Your task to perform on an android device: Do I have any events today? Image 0: 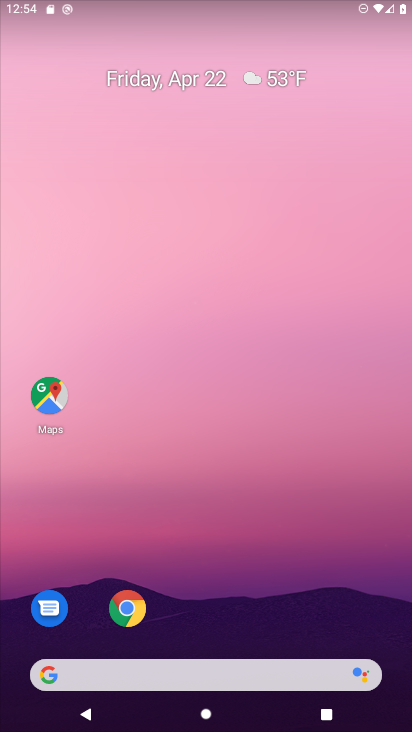
Step 0: drag from (389, 659) to (326, 204)
Your task to perform on an android device: Do I have any events today? Image 1: 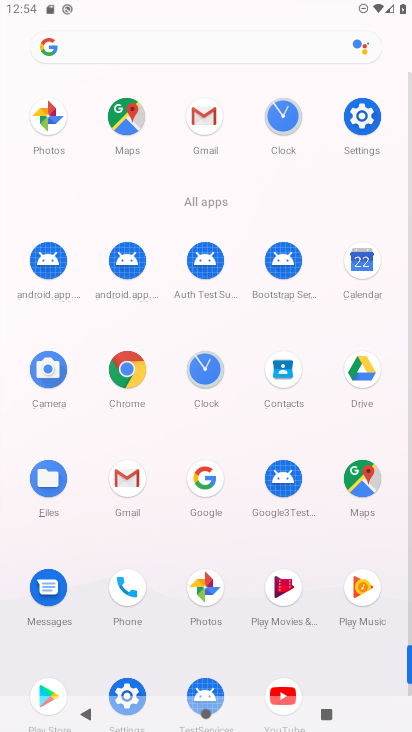
Step 1: click (363, 261)
Your task to perform on an android device: Do I have any events today? Image 2: 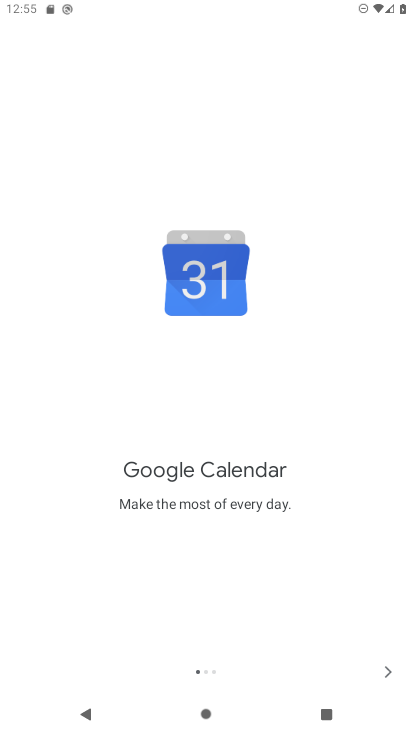
Step 2: click (382, 673)
Your task to perform on an android device: Do I have any events today? Image 3: 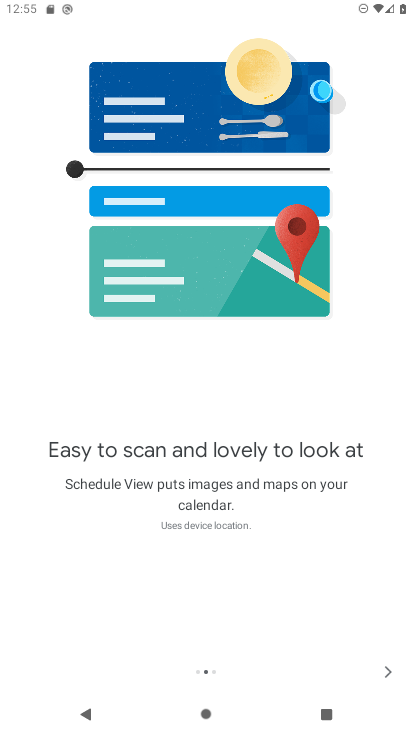
Step 3: click (386, 667)
Your task to perform on an android device: Do I have any events today? Image 4: 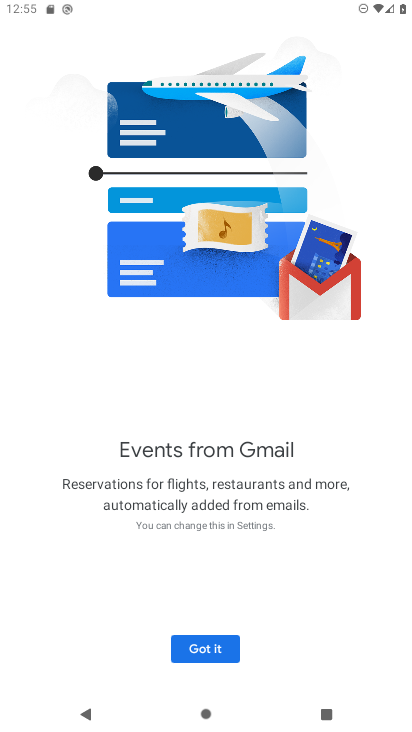
Step 4: click (210, 640)
Your task to perform on an android device: Do I have any events today? Image 5: 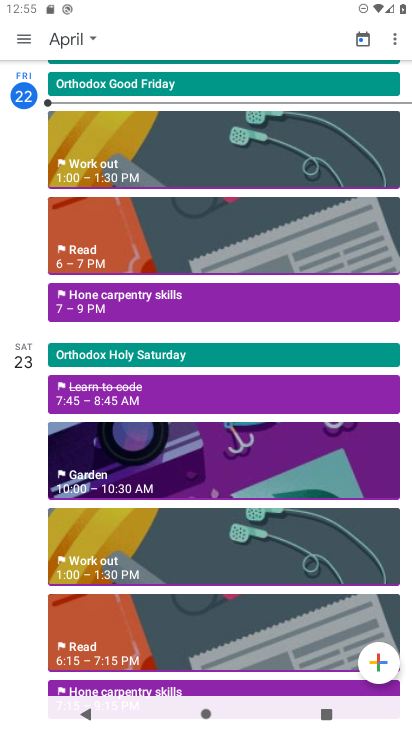
Step 5: click (16, 38)
Your task to perform on an android device: Do I have any events today? Image 6: 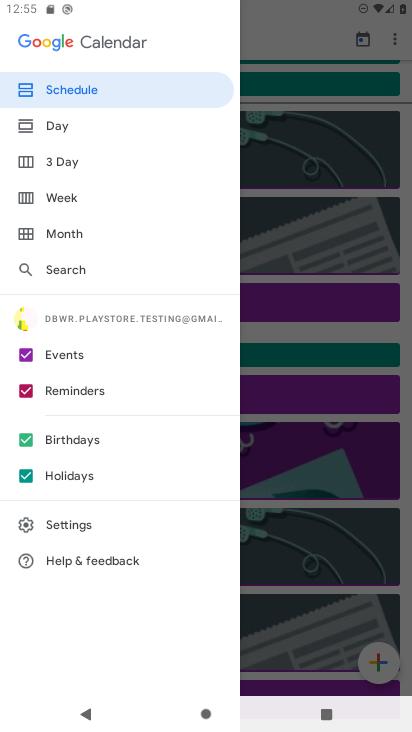
Step 6: click (56, 125)
Your task to perform on an android device: Do I have any events today? Image 7: 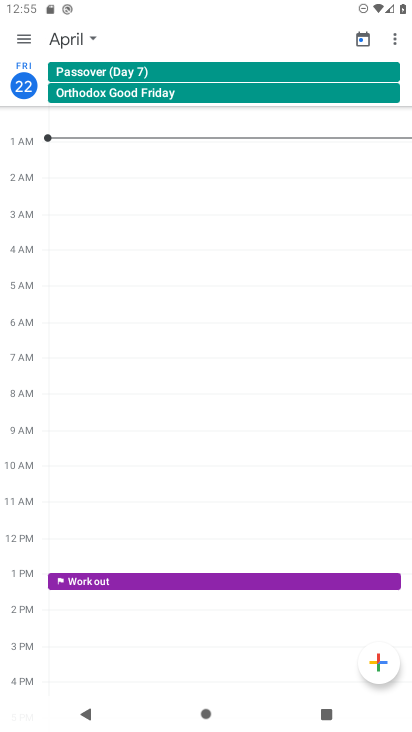
Step 7: click (85, 39)
Your task to perform on an android device: Do I have any events today? Image 8: 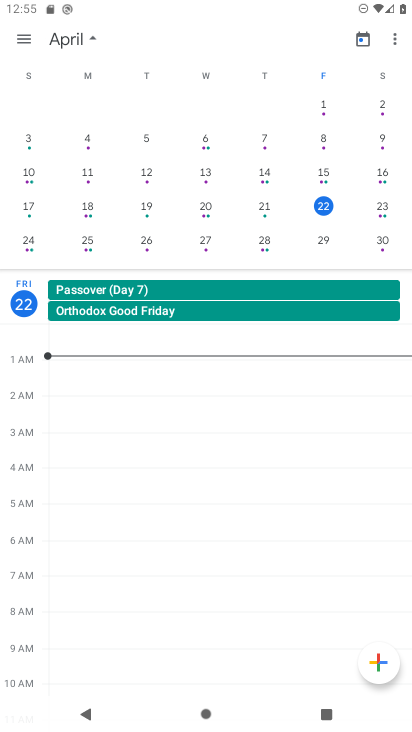
Step 8: task complete